Your task to perform on an android device: Open accessibility settings Image 0: 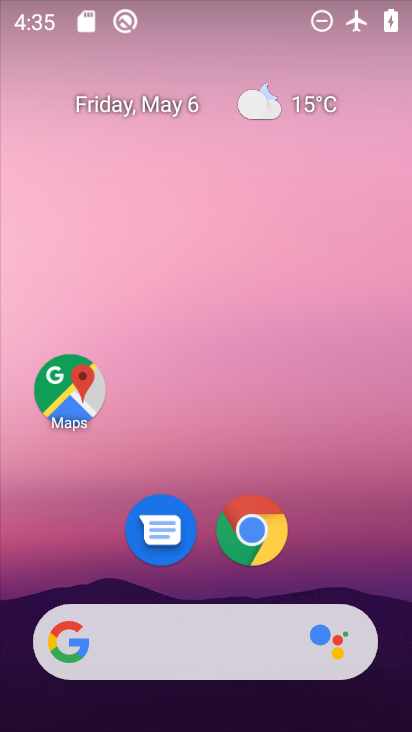
Step 0: drag from (340, 514) to (360, 99)
Your task to perform on an android device: Open accessibility settings Image 1: 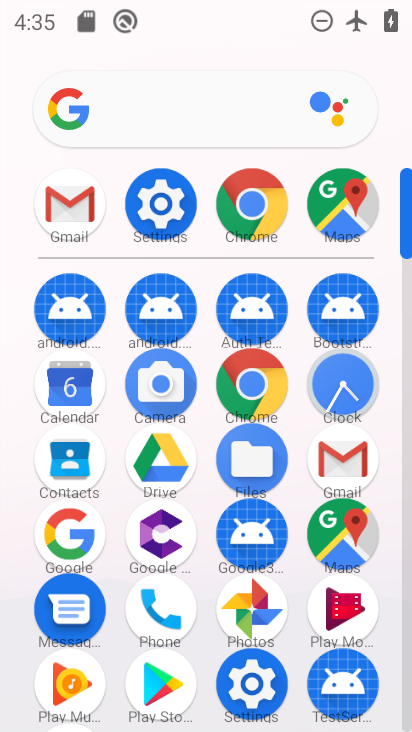
Step 1: click (138, 220)
Your task to perform on an android device: Open accessibility settings Image 2: 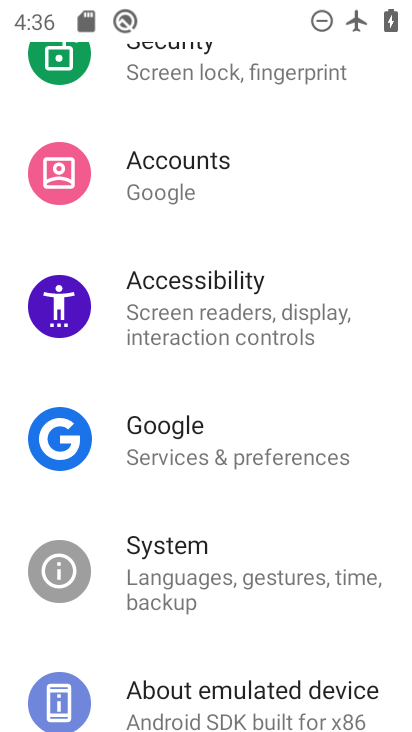
Step 2: click (164, 311)
Your task to perform on an android device: Open accessibility settings Image 3: 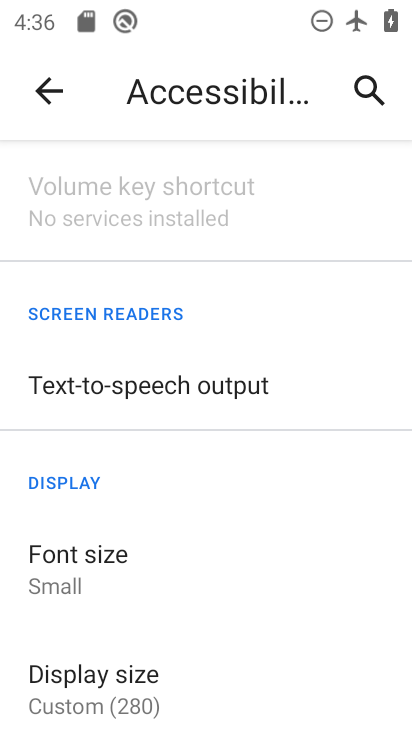
Step 3: task complete